Your task to perform on an android device: Open Chrome and go to the settings page Image 0: 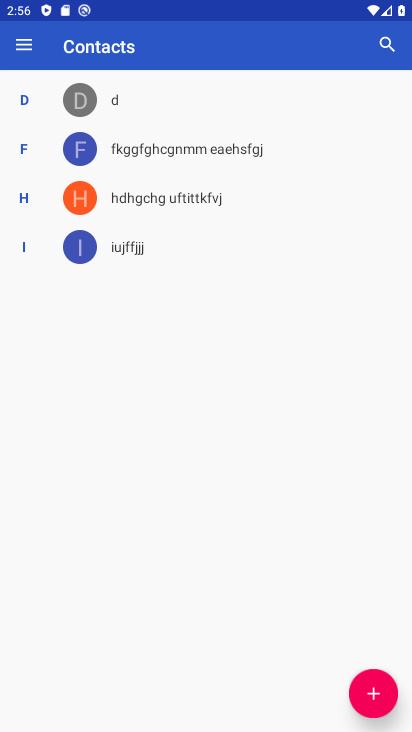
Step 0: press home button
Your task to perform on an android device: Open Chrome and go to the settings page Image 1: 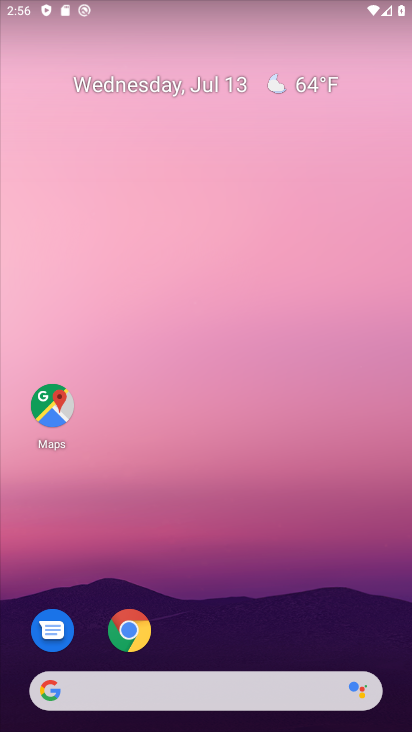
Step 1: click (129, 633)
Your task to perform on an android device: Open Chrome and go to the settings page Image 2: 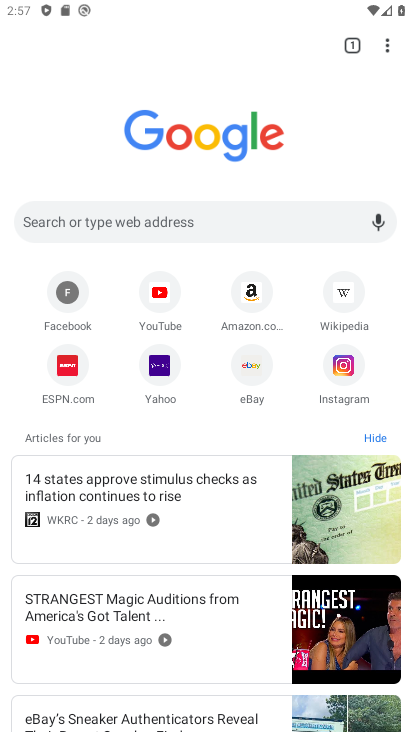
Step 2: click (394, 48)
Your task to perform on an android device: Open Chrome and go to the settings page Image 3: 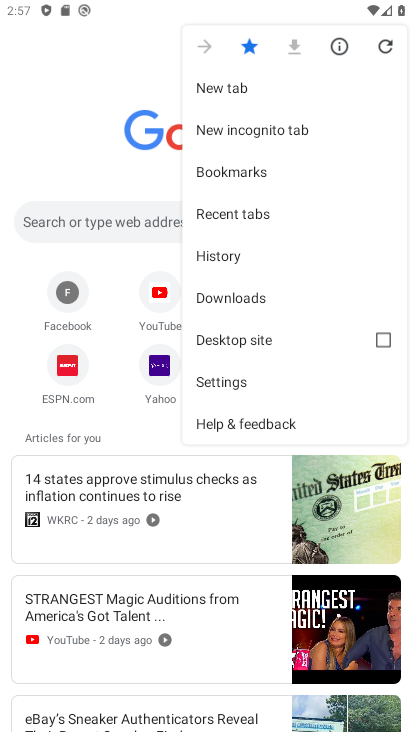
Step 3: click (239, 389)
Your task to perform on an android device: Open Chrome and go to the settings page Image 4: 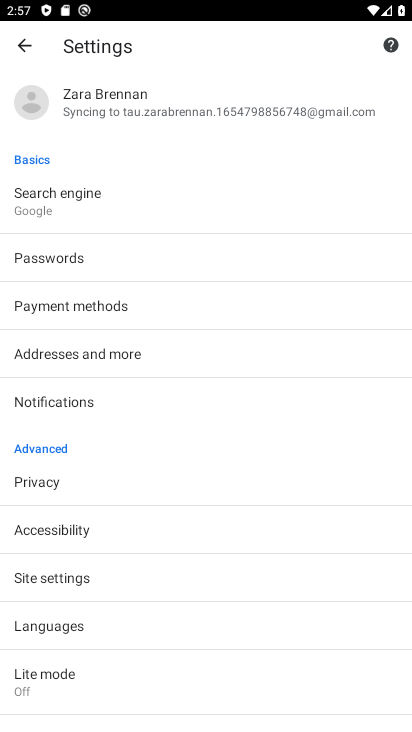
Step 4: task complete